Your task to perform on an android device: turn off airplane mode Image 0: 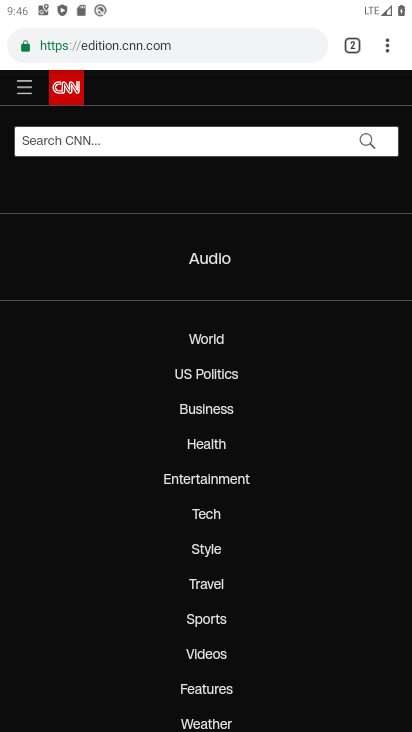
Step 0: press home button
Your task to perform on an android device: turn off airplane mode Image 1: 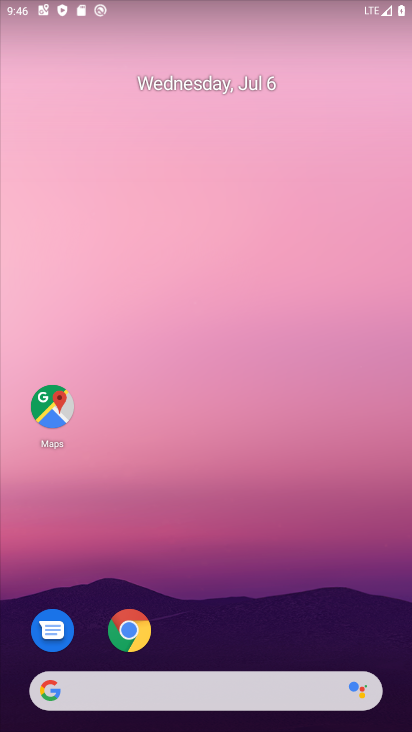
Step 1: drag from (369, 655) to (312, 145)
Your task to perform on an android device: turn off airplane mode Image 2: 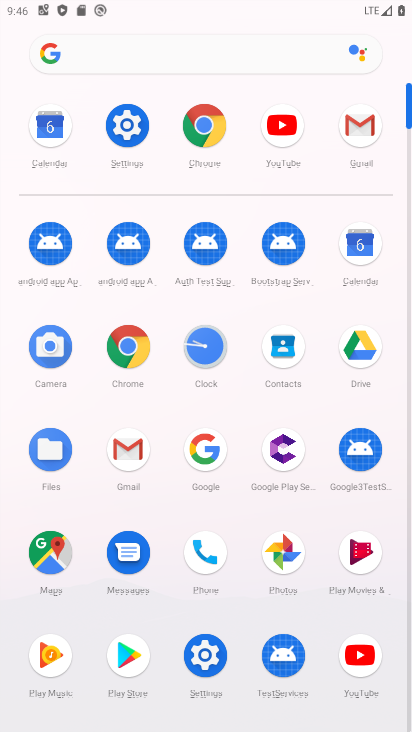
Step 2: click (205, 658)
Your task to perform on an android device: turn off airplane mode Image 3: 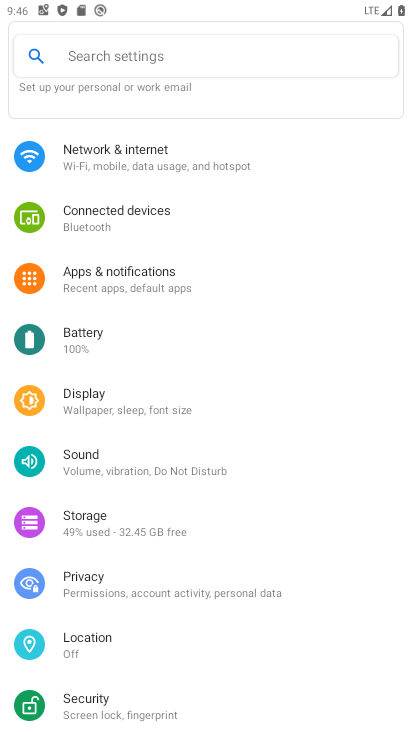
Step 3: click (93, 145)
Your task to perform on an android device: turn off airplane mode Image 4: 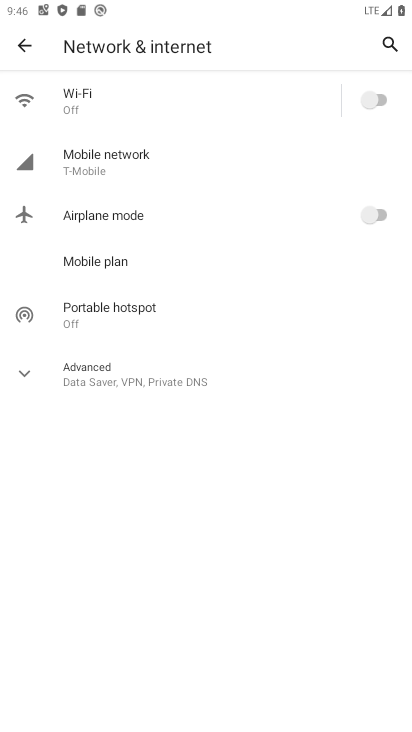
Step 4: task complete